Your task to perform on an android device: Is it going to rain this weekend? Image 0: 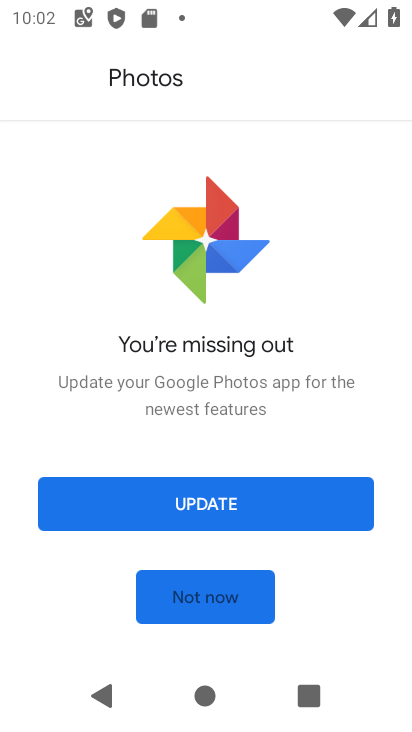
Step 0: press home button
Your task to perform on an android device: Is it going to rain this weekend? Image 1: 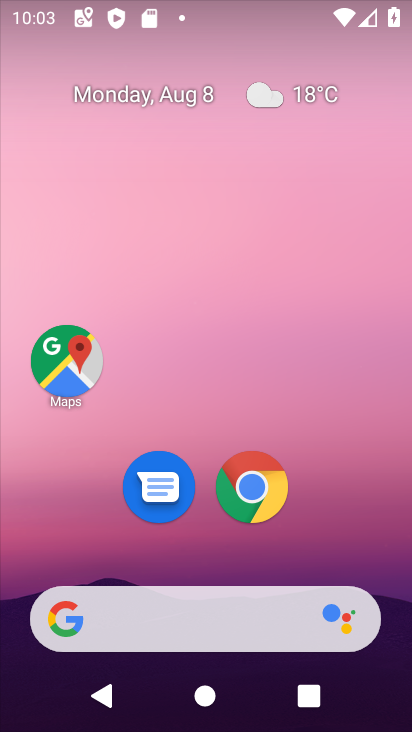
Step 1: drag from (219, 581) to (171, 25)
Your task to perform on an android device: Is it going to rain this weekend? Image 2: 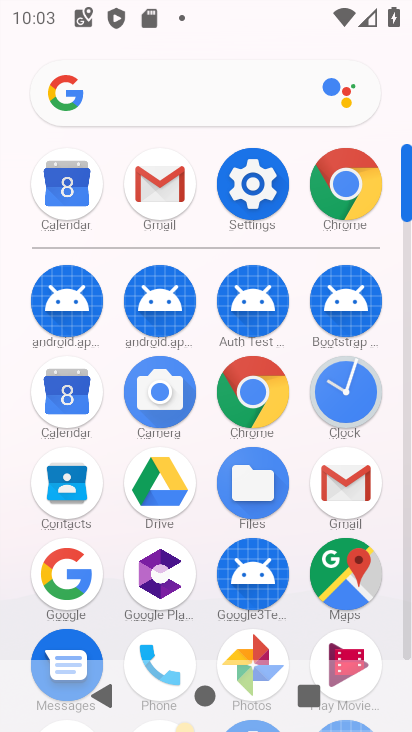
Step 2: click (55, 578)
Your task to perform on an android device: Is it going to rain this weekend? Image 3: 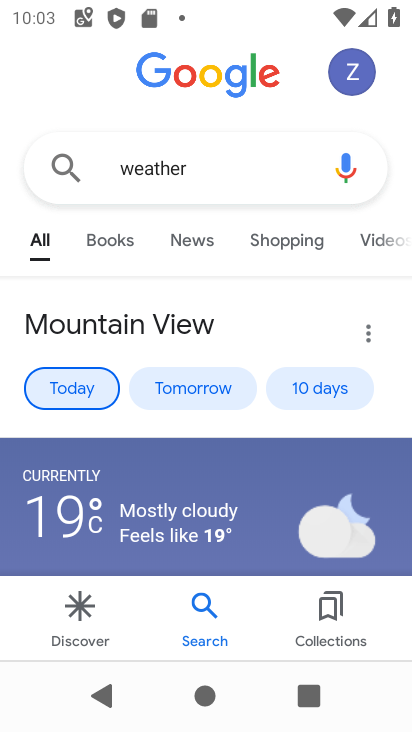
Step 3: click (316, 379)
Your task to perform on an android device: Is it going to rain this weekend? Image 4: 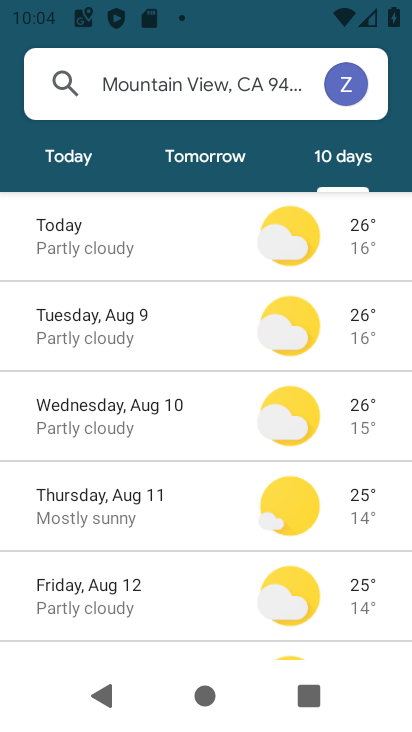
Step 4: task complete